Your task to perform on an android device: Open Google Chrome and click the shortcut for Amazon.com Image 0: 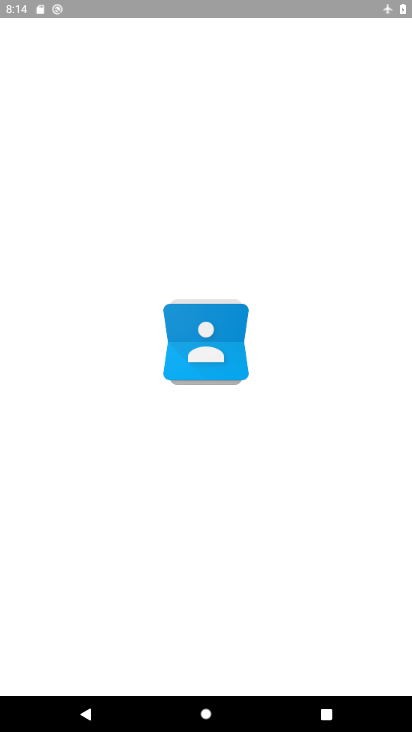
Step 0: drag from (362, 611) to (385, 444)
Your task to perform on an android device: Open Google Chrome and click the shortcut for Amazon.com Image 1: 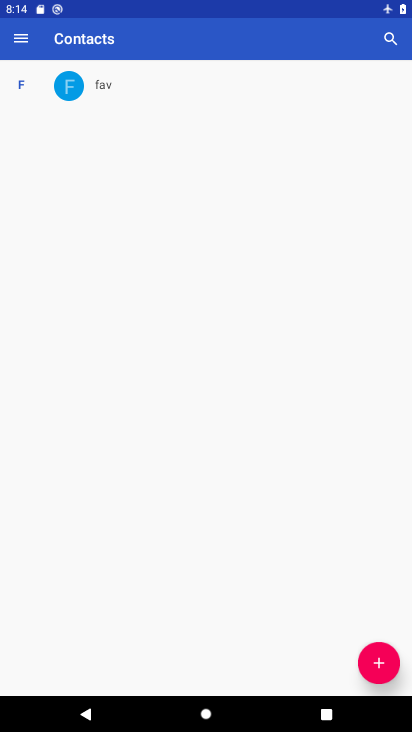
Step 1: press home button
Your task to perform on an android device: Open Google Chrome and click the shortcut for Amazon.com Image 2: 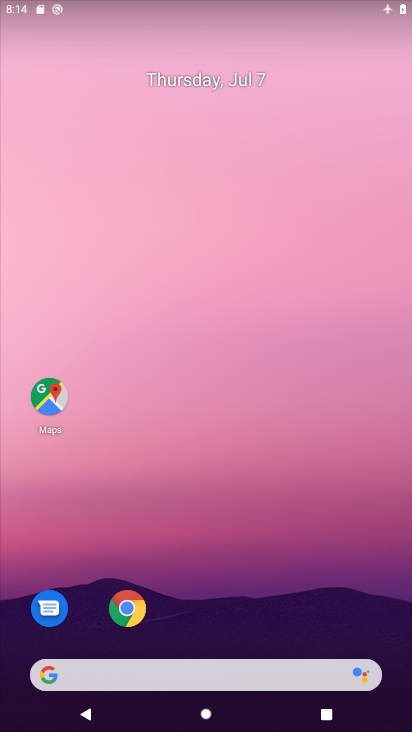
Step 2: drag from (359, 608) to (388, 8)
Your task to perform on an android device: Open Google Chrome and click the shortcut for Amazon.com Image 3: 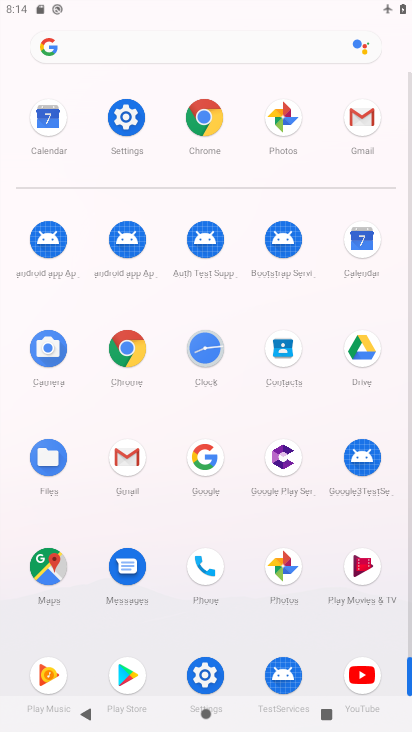
Step 3: click (134, 345)
Your task to perform on an android device: Open Google Chrome and click the shortcut for Amazon.com Image 4: 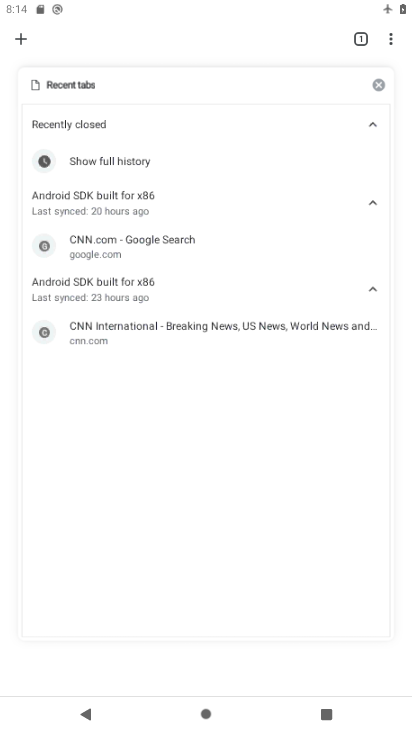
Step 4: press back button
Your task to perform on an android device: Open Google Chrome and click the shortcut for Amazon.com Image 5: 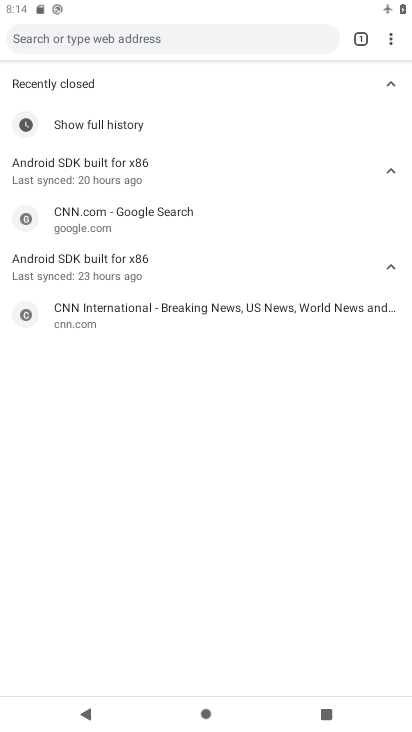
Step 5: press back button
Your task to perform on an android device: Open Google Chrome and click the shortcut for Amazon.com Image 6: 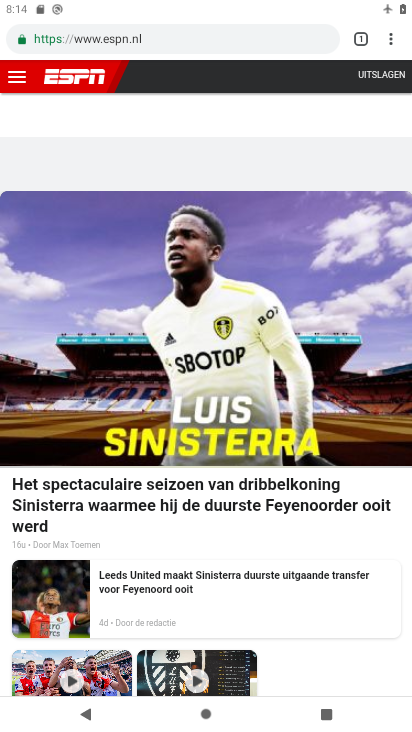
Step 6: press back button
Your task to perform on an android device: Open Google Chrome and click the shortcut for Amazon.com Image 7: 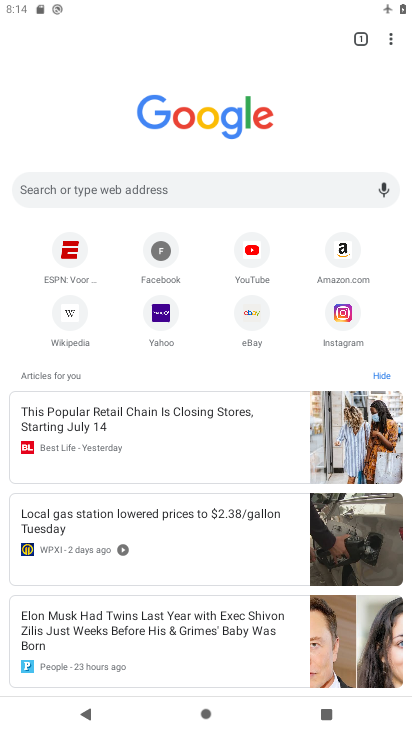
Step 7: click (343, 254)
Your task to perform on an android device: Open Google Chrome and click the shortcut for Amazon.com Image 8: 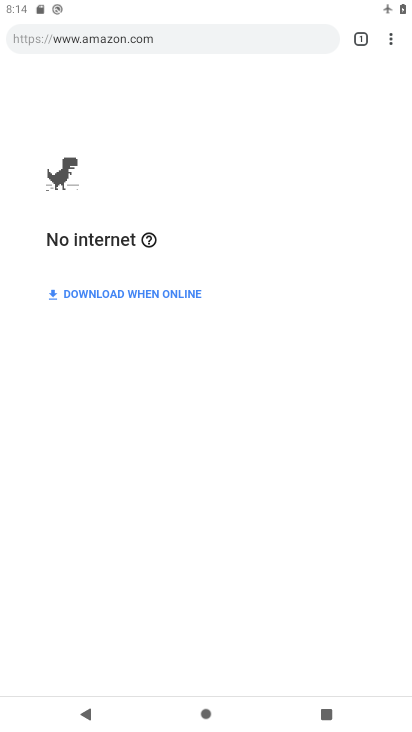
Step 8: task complete